Your task to perform on an android device: add a contact Image 0: 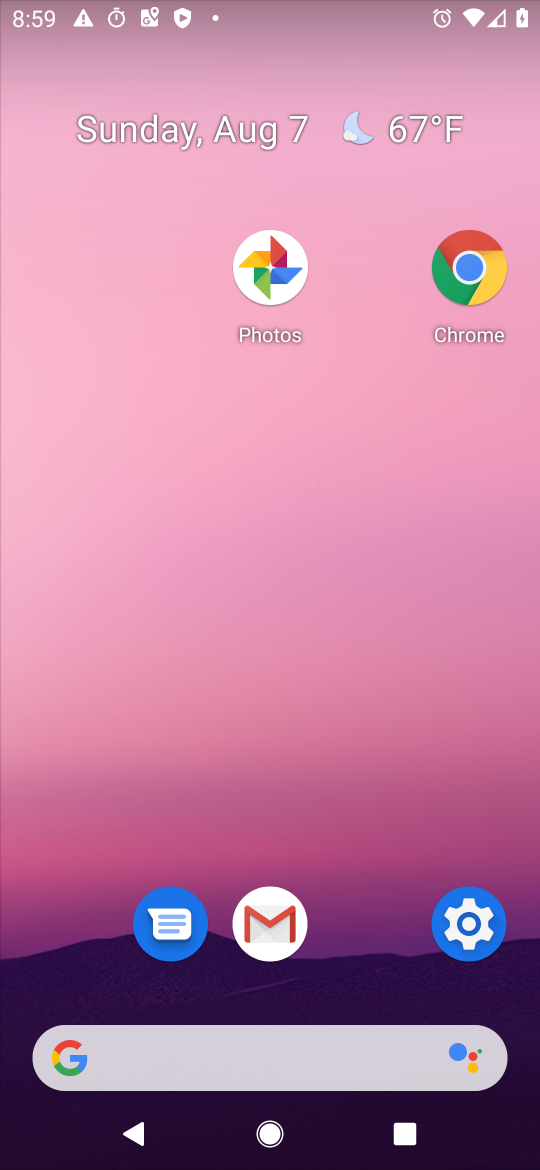
Step 0: press home button
Your task to perform on an android device: add a contact Image 1: 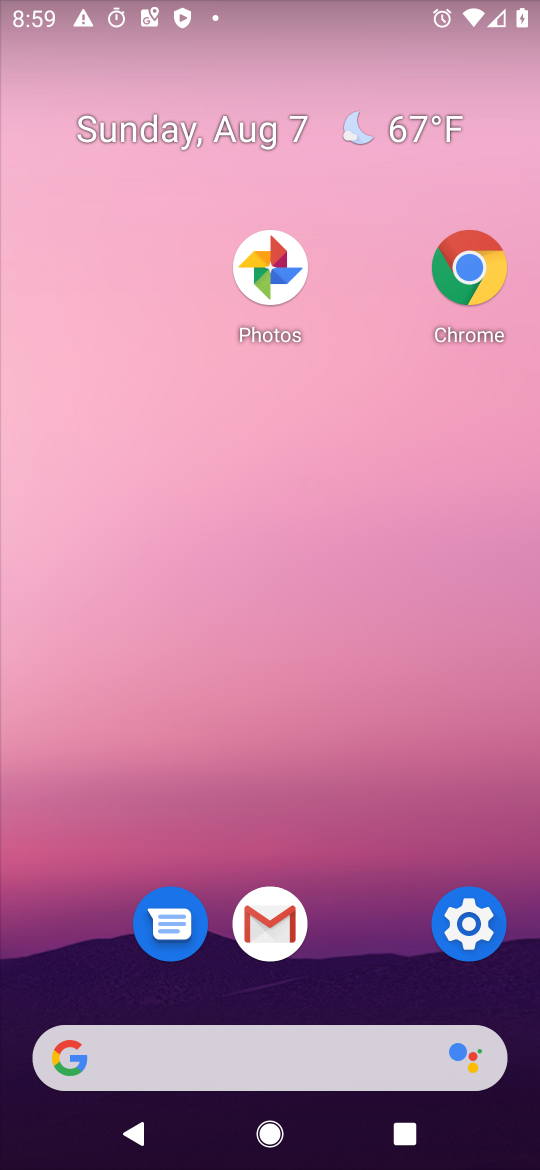
Step 1: drag from (330, 996) to (296, 199)
Your task to perform on an android device: add a contact Image 2: 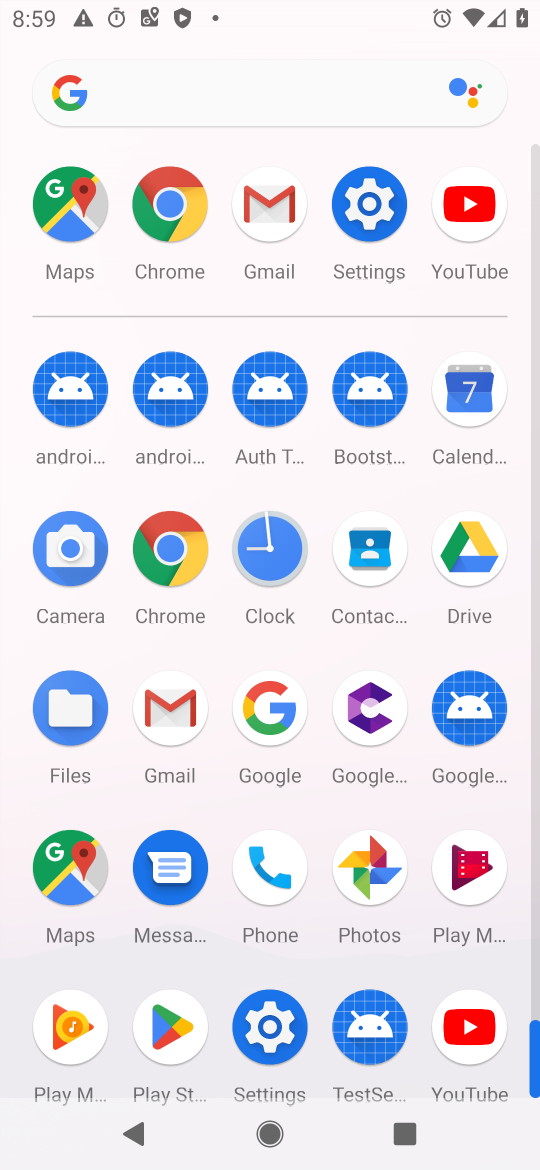
Step 2: click (264, 861)
Your task to perform on an android device: add a contact Image 3: 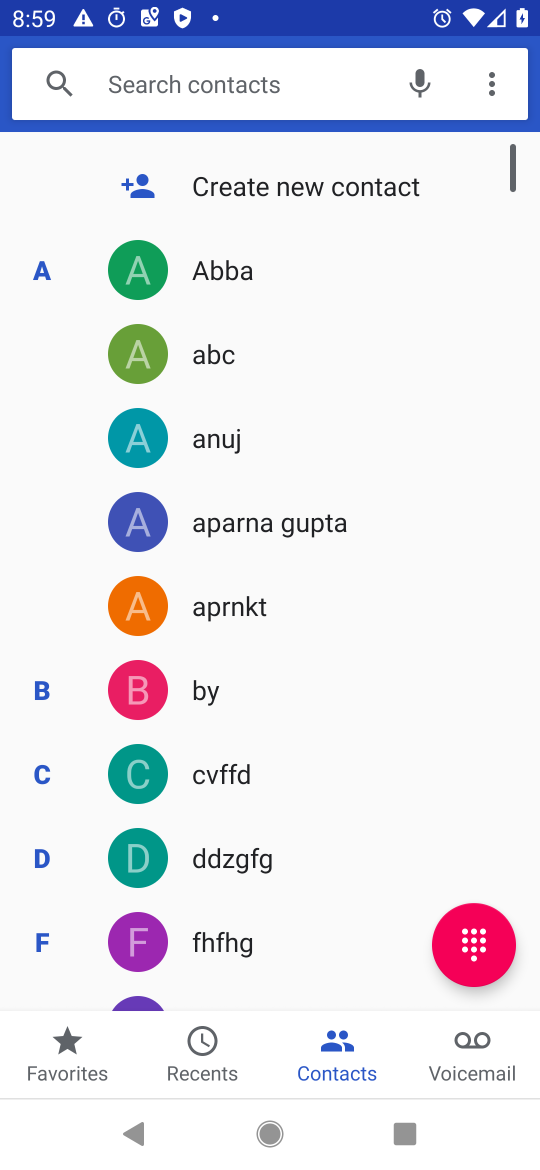
Step 3: click (272, 194)
Your task to perform on an android device: add a contact Image 4: 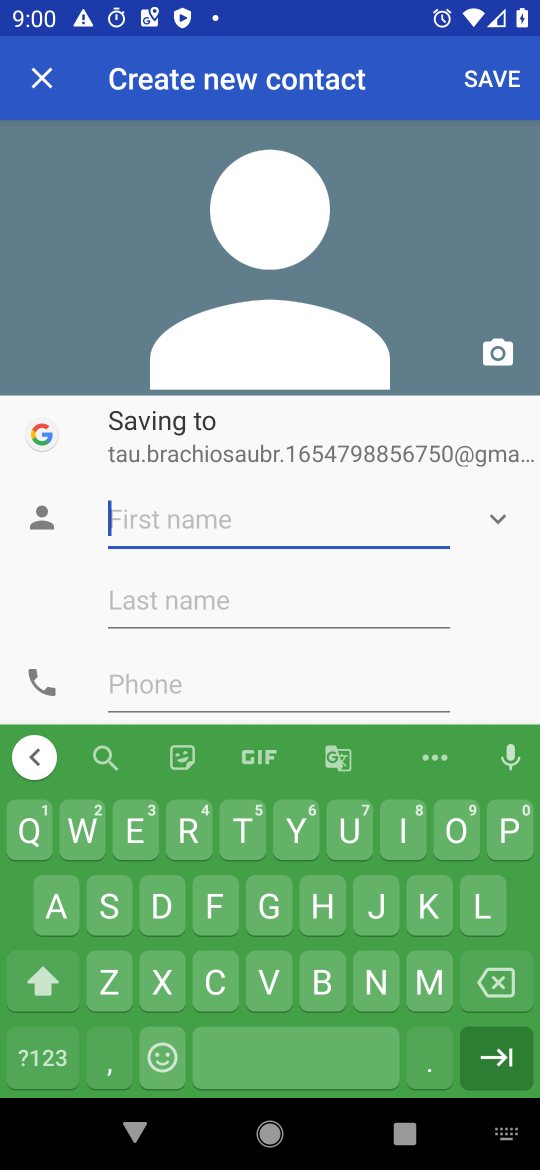
Step 4: click (186, 851)
Your task to perform on an android device: add a contact Image 5: 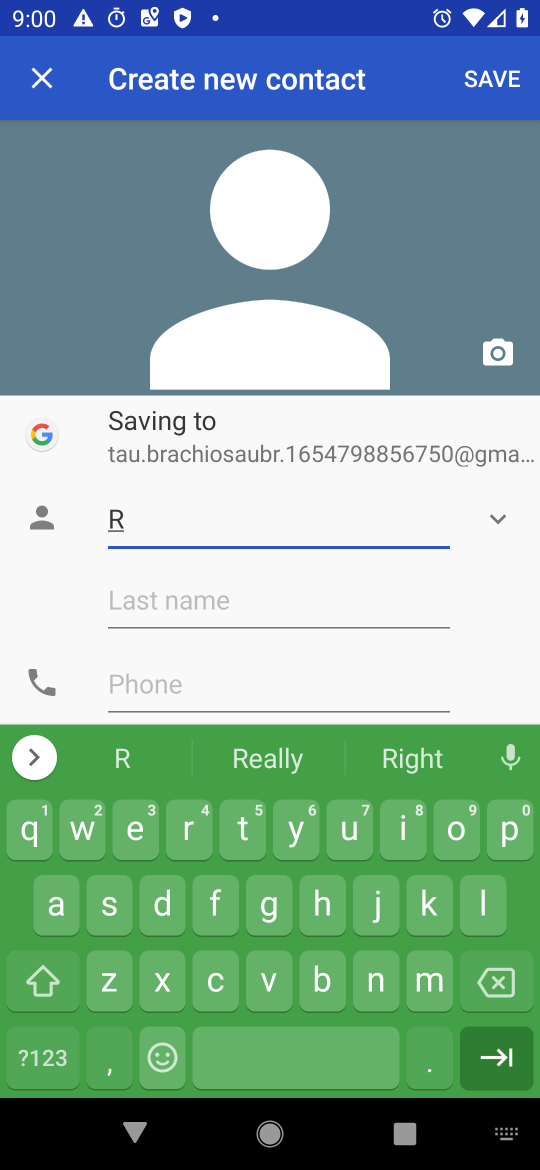
Step 5: click (375, 902)
Your task to perform on an android device: add a contact Image 6: 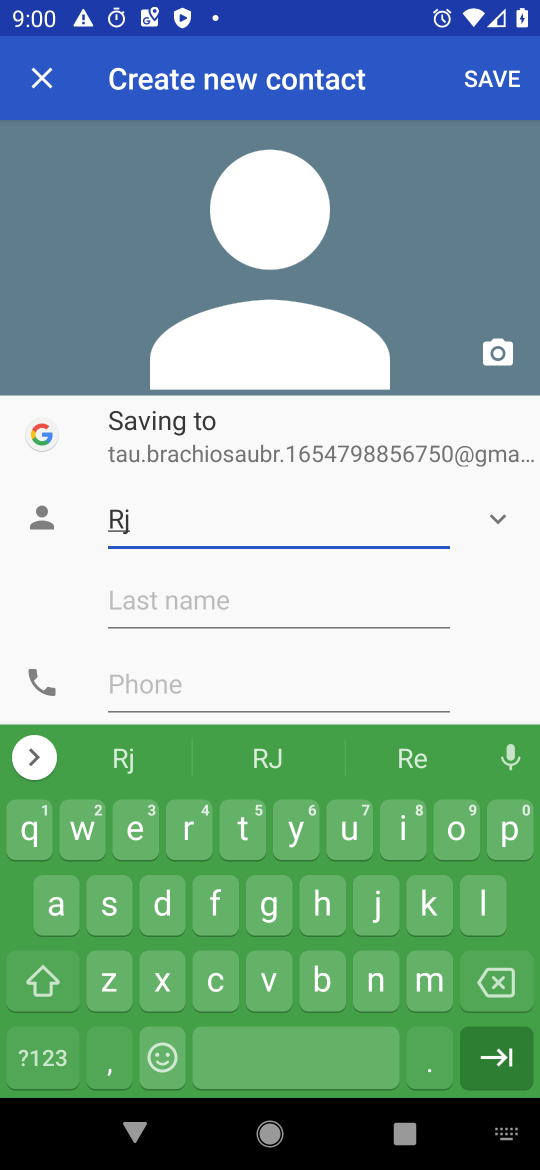
Step 6: click (218, 663)
Your task to perform on an android device: add a contact Image 7: 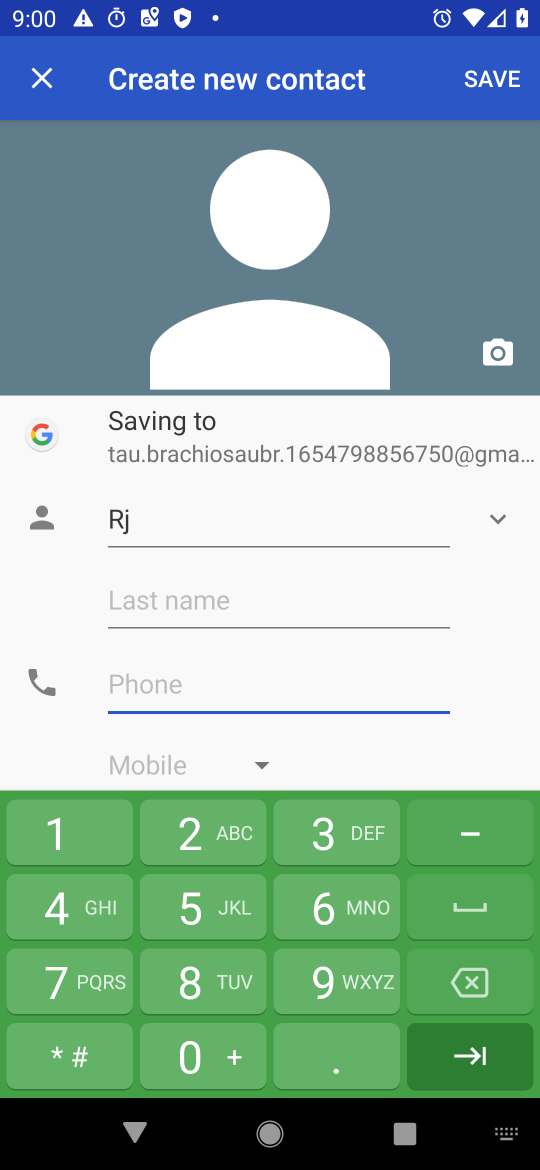
Step 7: click (324, 865)
Your task to perform on an android device: add a contact Image 8: 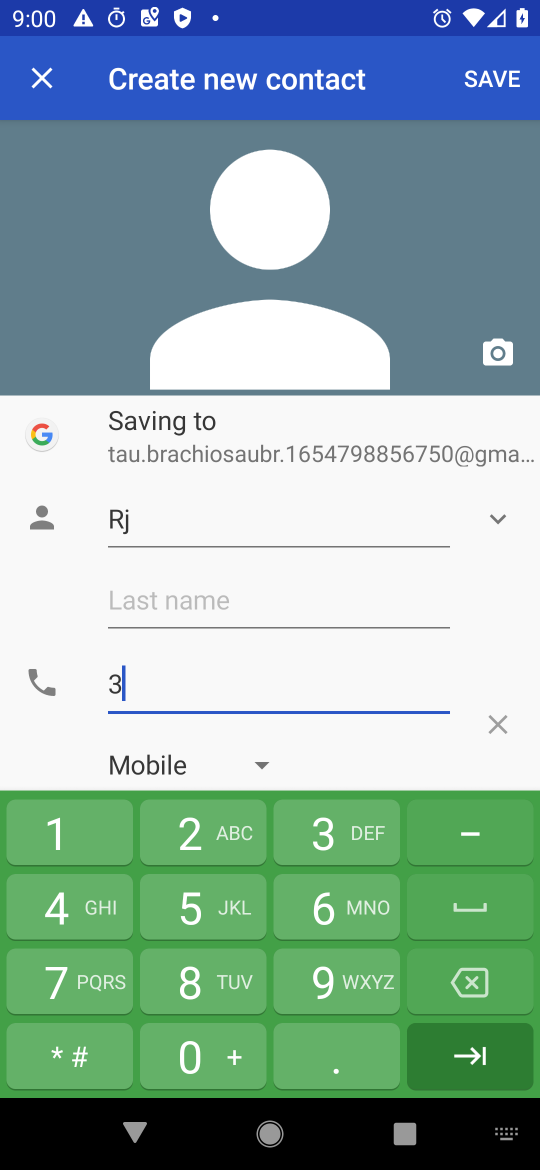
Step 8: click (204, 917)
Your task to perform on an android device: add a contact Image 9: 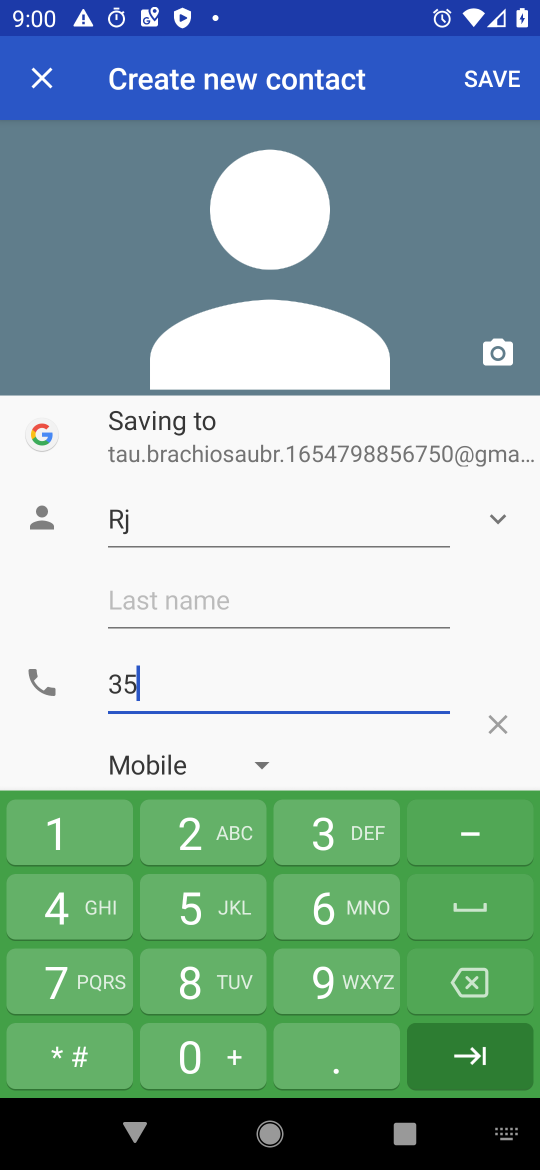
Step 9: click (329, 897)
Your task to perform on an android device: add a contact Image 10: 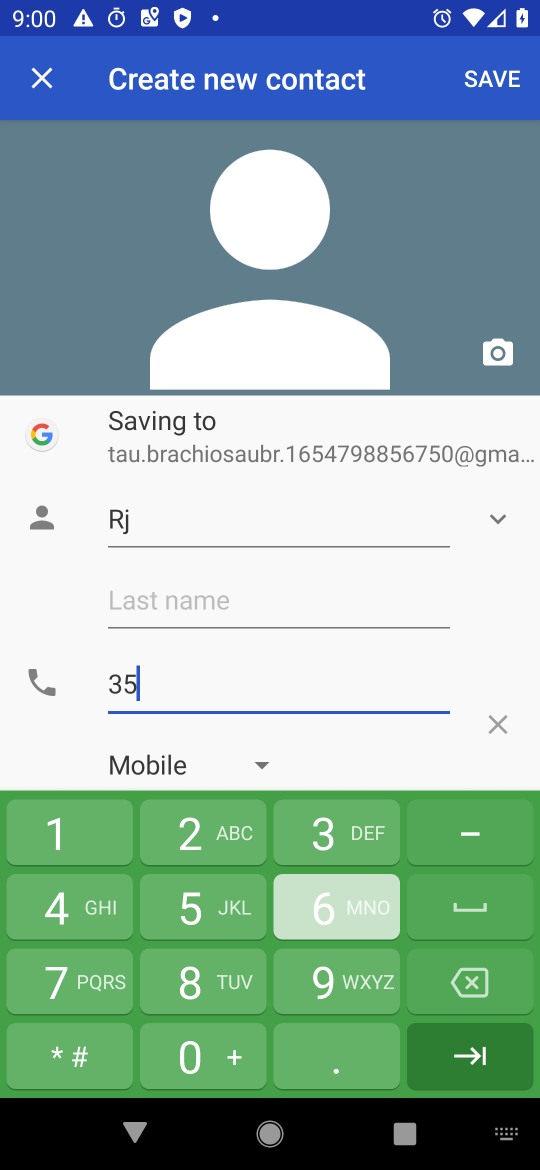
Step 10: click (353, 916)
Your task to perform on an android device: add a contact Image 11: 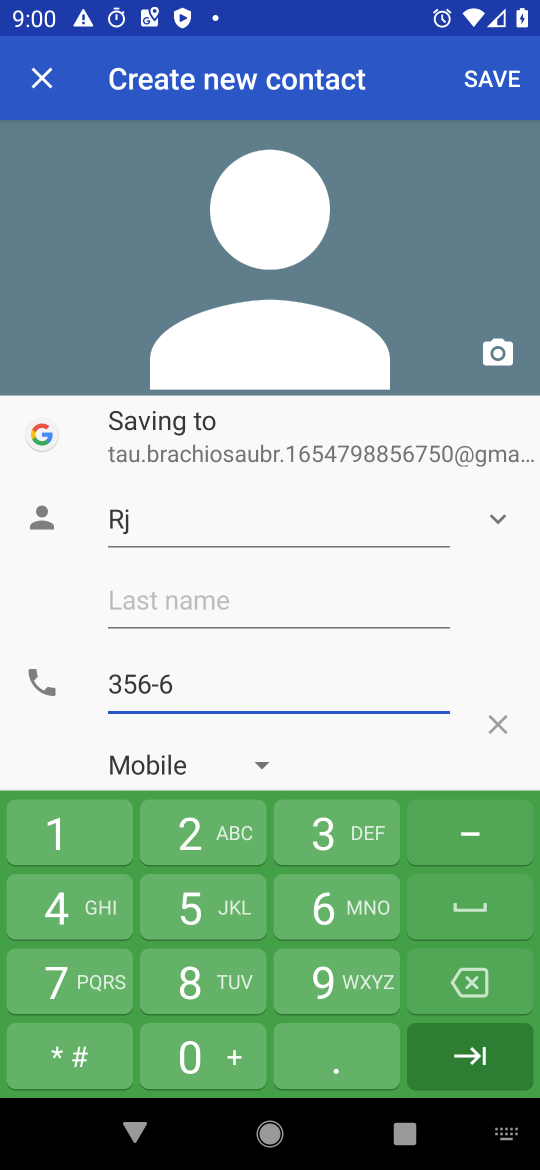
Step 11: click (502, 84)
Your task to perform on an android device: add a contact Image 12: 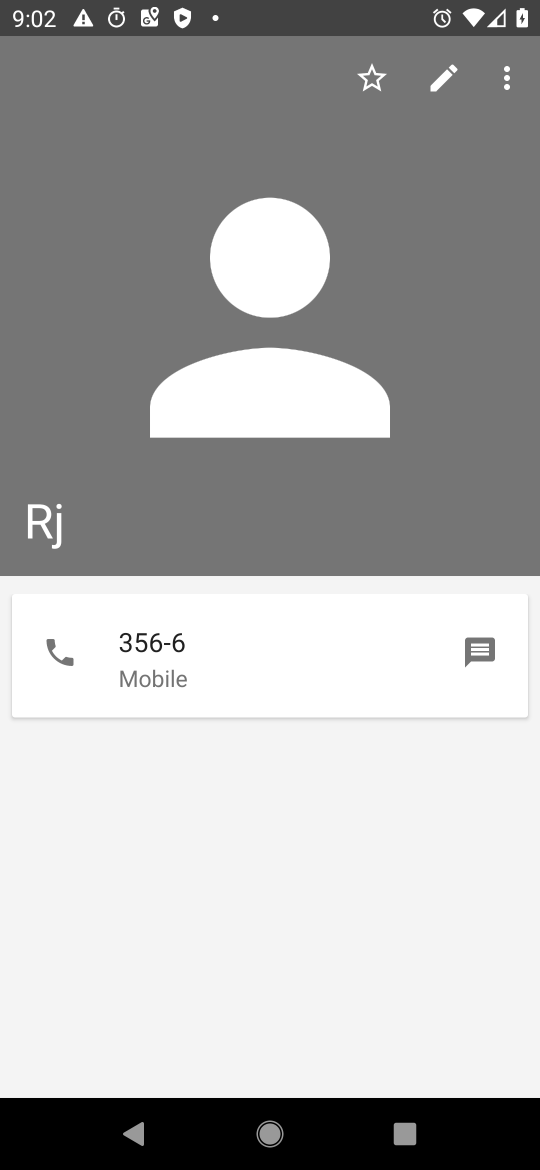
Step 12: task complete